Your task to perform on an android device: Go to Google Image 0: 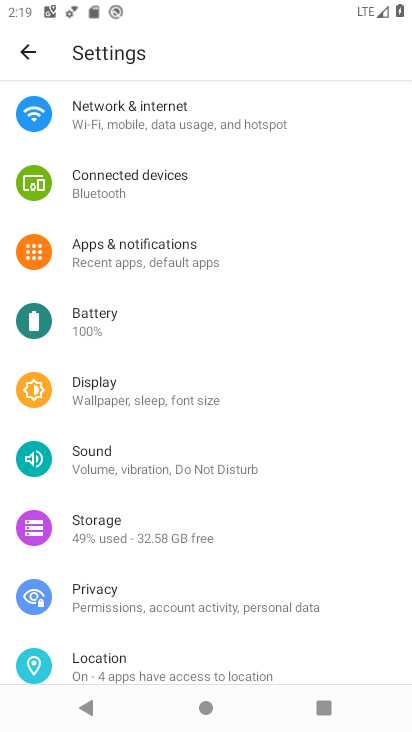
Step 0: press home button
Your task to perform on an android device: Go to Google Image 1: 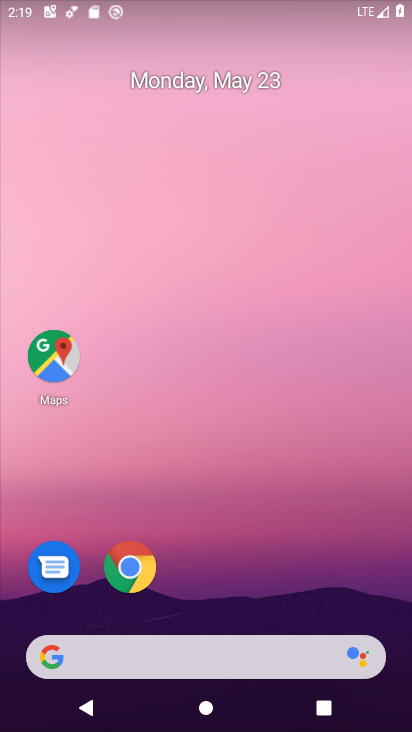
Step 1: drag from (252, 511) to (243, 204)
Your task to perform on an android device: Go to Google Image 2: 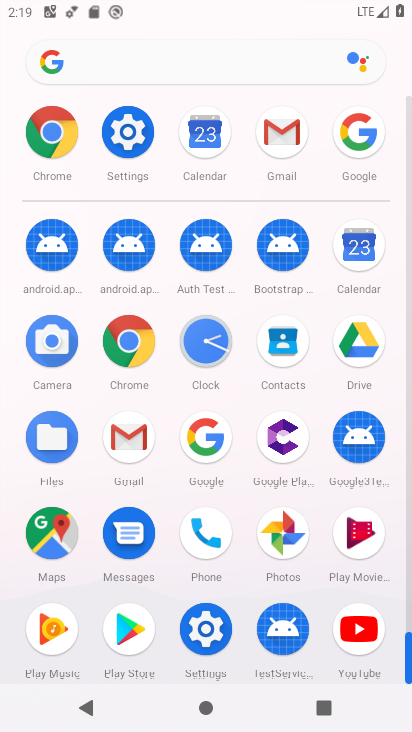
Step 2: click (205, 441)
Your task to perform on an android device: Go to Google Image 3: 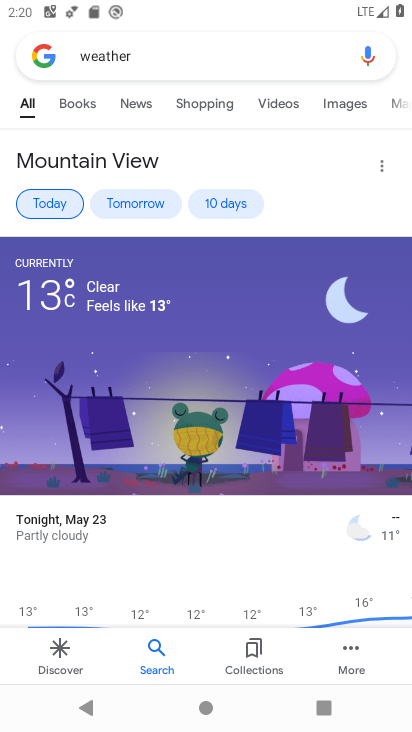
Step 3: task complete